Your task to perform on an android device: Go to Wikipedia Image 0: 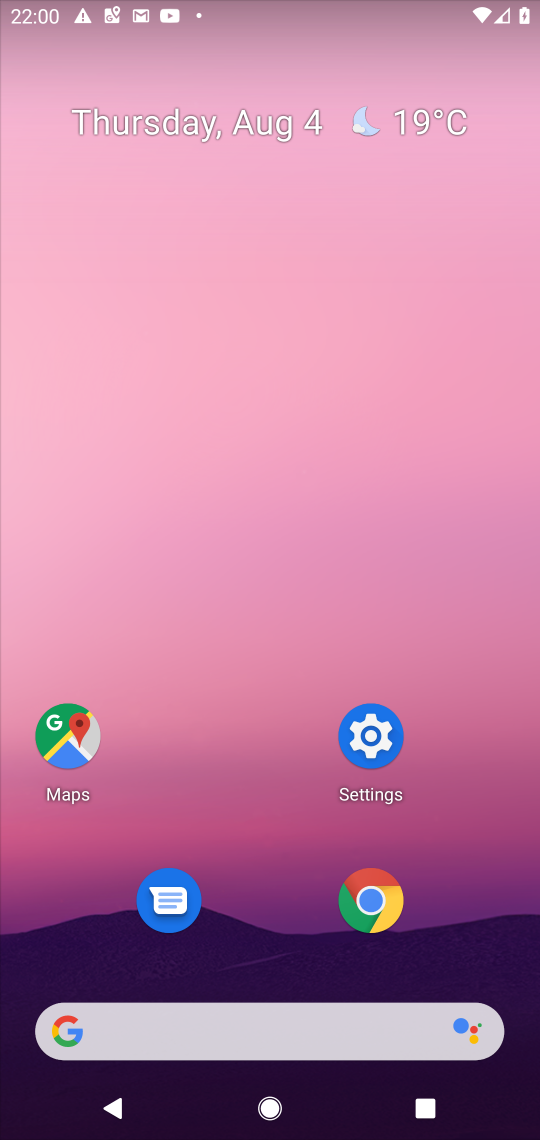
Step 0: press home button
Your task to perform on an android device: Go to Wikipedia Image 1: 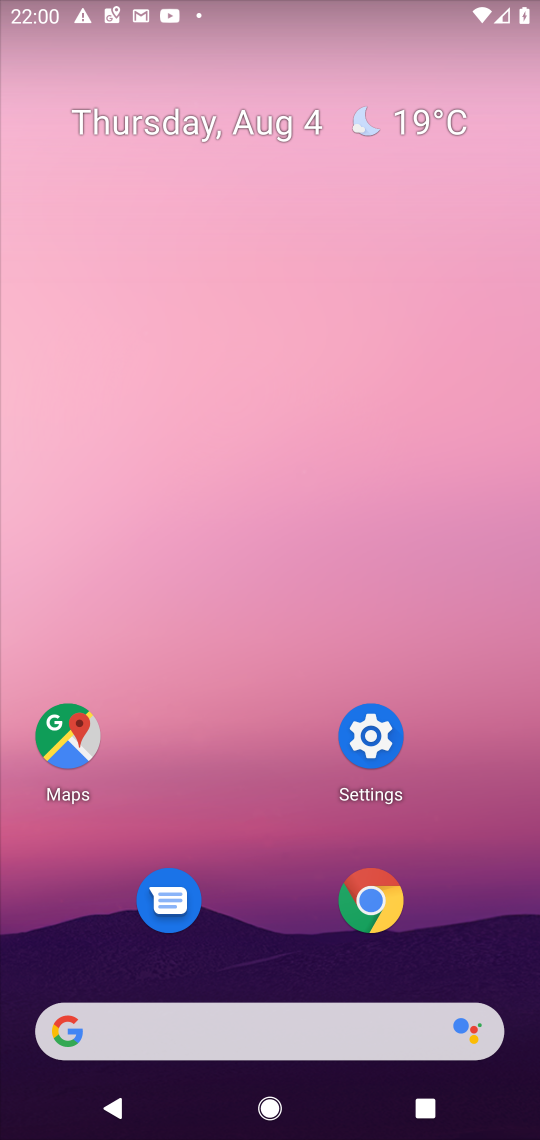
Step 1: click (367, 895)
Your task to perform on an android device: Go to Wikipedia Image 2: 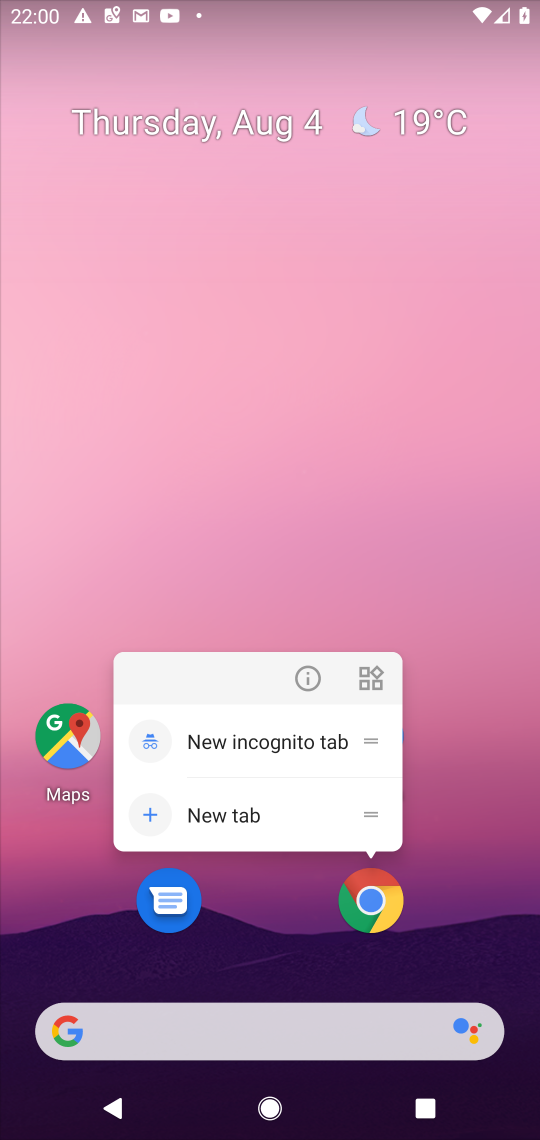
Step 2: click (364, 908)
Your task to perform on an android device: Go to Wikipedia Image 3: 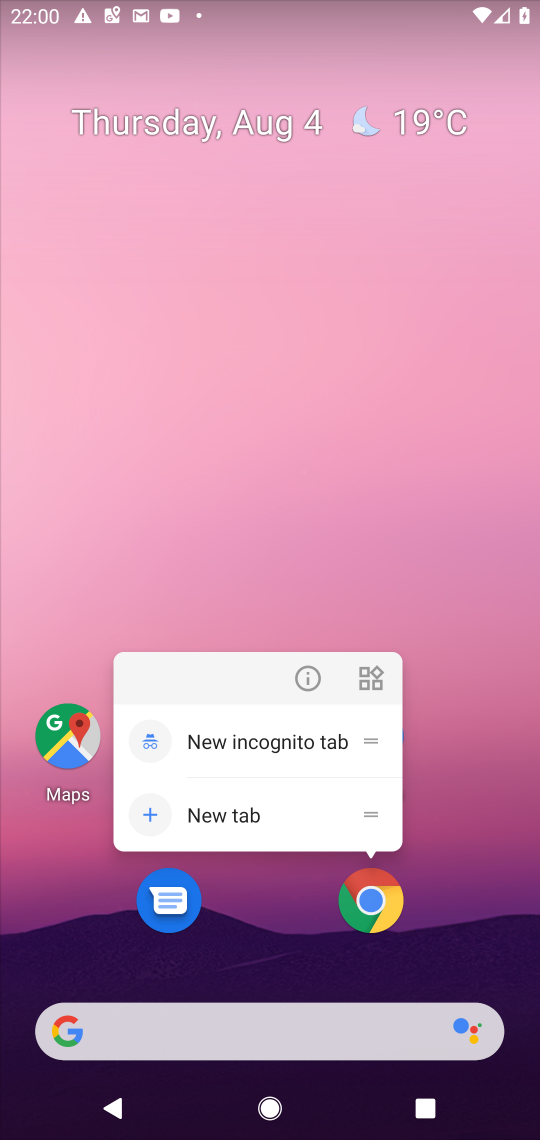
Step 3: click (364, 908)
Your task to perform on an android device: Go to Wikipedia Image 4: 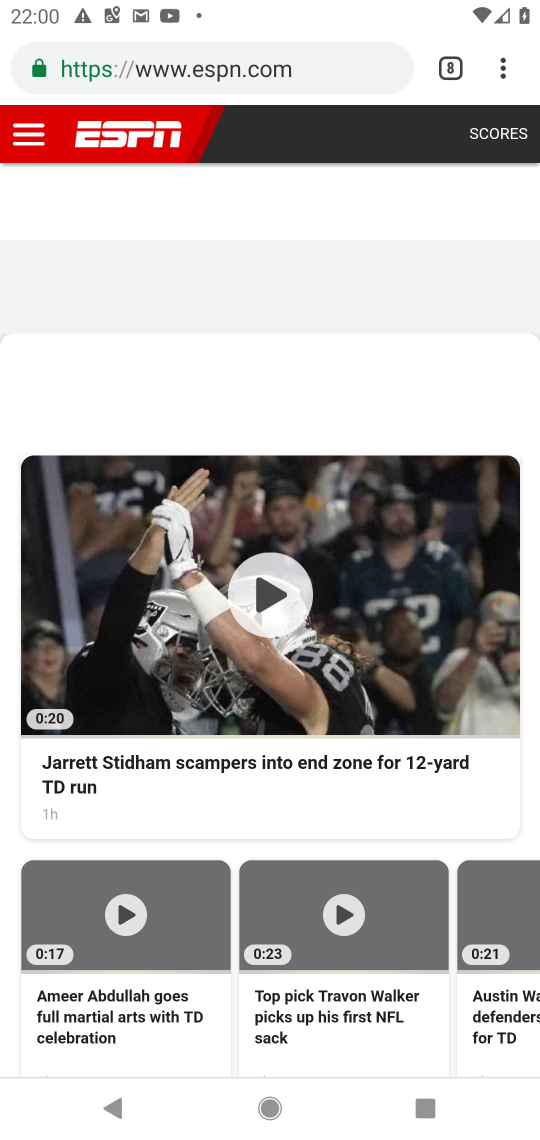
Step 4: drag from (498, 63) to (333, 215)
Your task to perform on an android device: Go to Wikipedia Image 5: 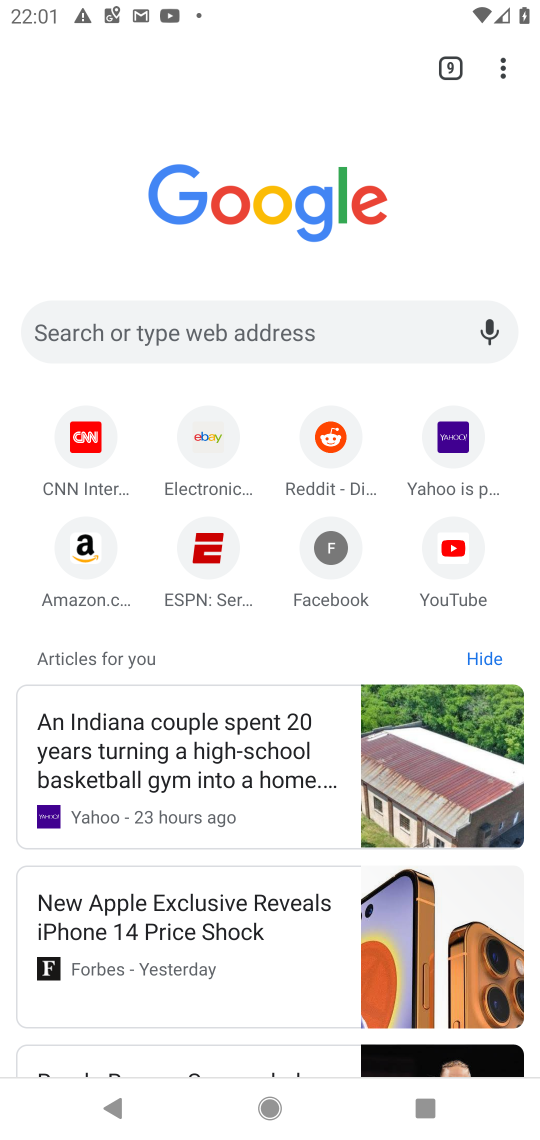
Step 5: click (135, 326)
Your task to perform on an android device: Go to Wikipedia Image 6: 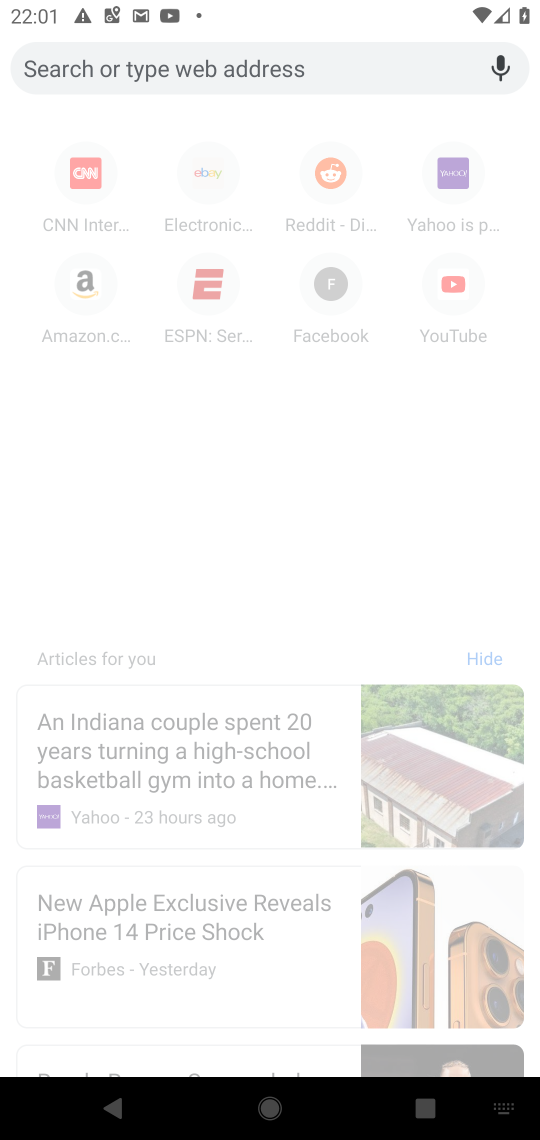
Step 6: type "Wikipedia"
Your task to perform on an android device: Go to Wikipedia Image 7: 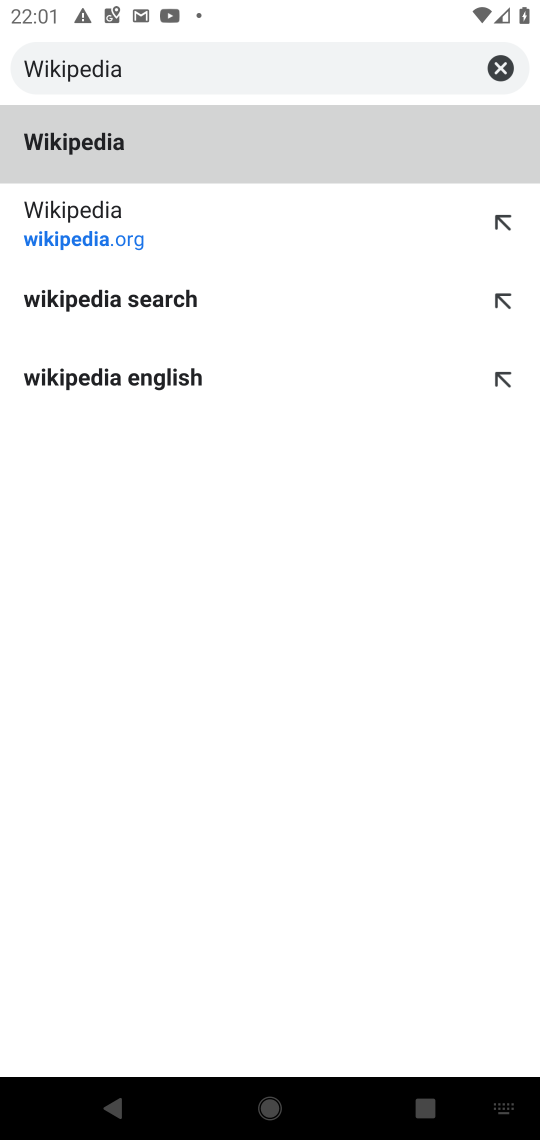
Step 7: click (88, 145)
Your task to perform on an android device: Go to Wikipedia Image 8: 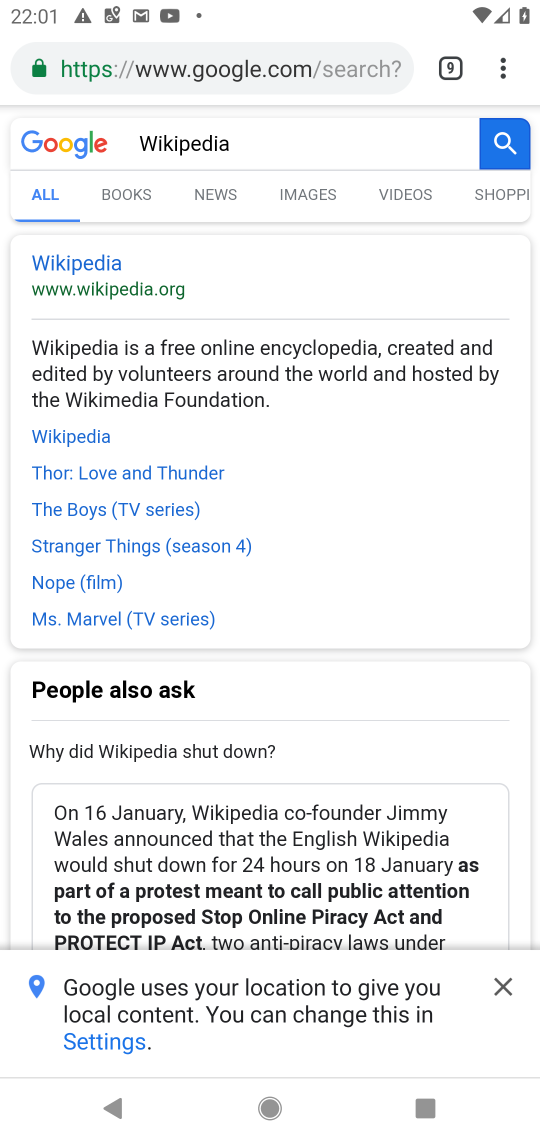
Step 8: click (75, 256)
Your task to perform on an android device: Go to Wikipedia Image 9: 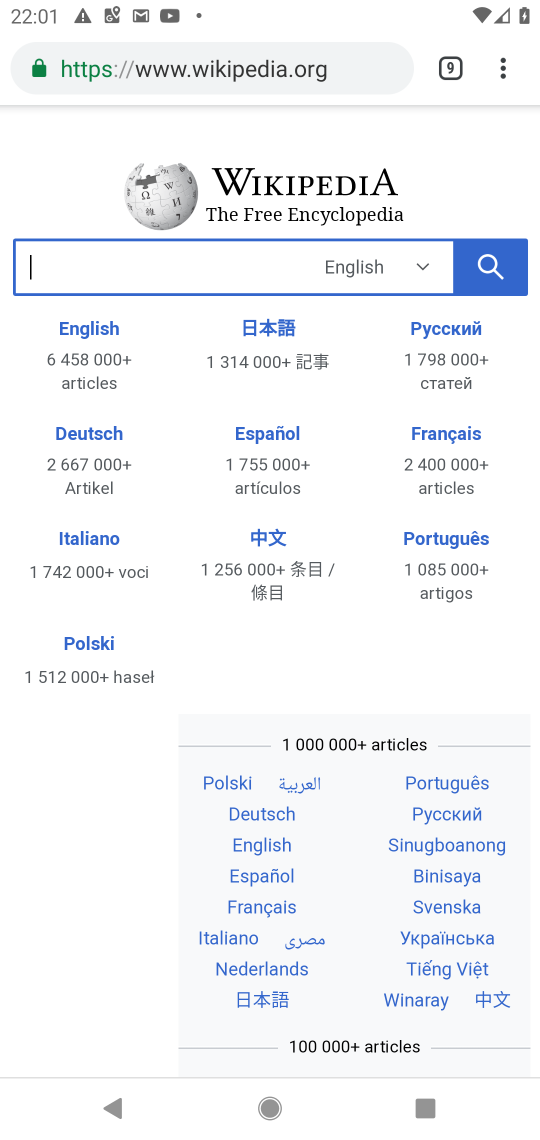
Step 9: task complete